Your task to perform on an android device: Open Youtube and go to "Your channel" Image 0: 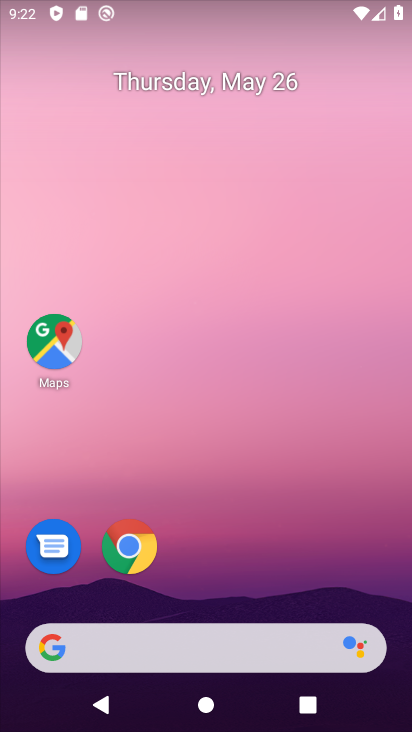
Step 0: drag from (297, 563) to (296, 209)
Your task to perform on an android device: Open Youtube and go to "Your channel" Image 1: 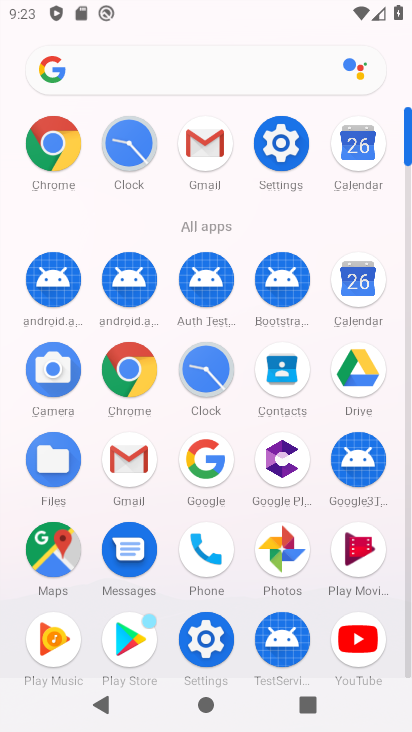
Step 1: click (371, 656)
Your task to perform on an android device: Open Youtube and go to "Your channel" Image 2: 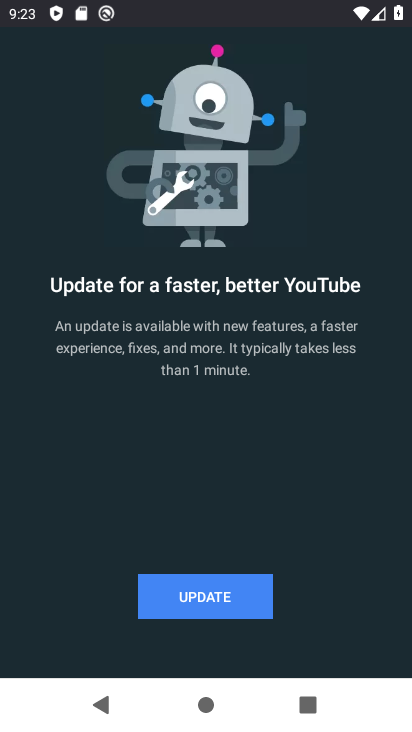
Step 2: click (217, 595)
Your task to perform on an android device: Open Youtube and go to "Your channel" Image 3: 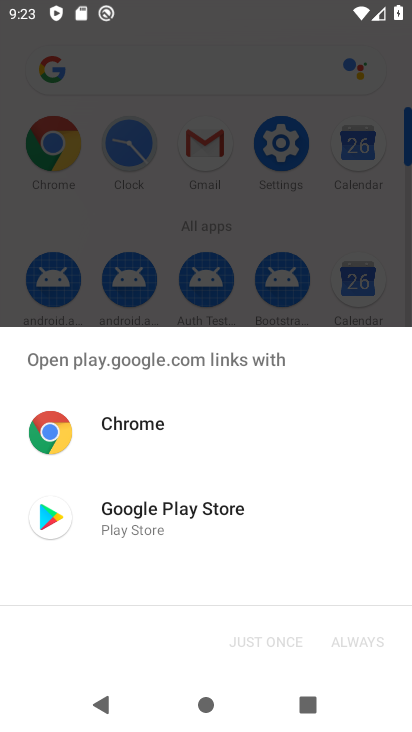
Step 3: click (176, 530)
Your task to perform on an android device: Open Youtube and go to "Your channel" Image 4: 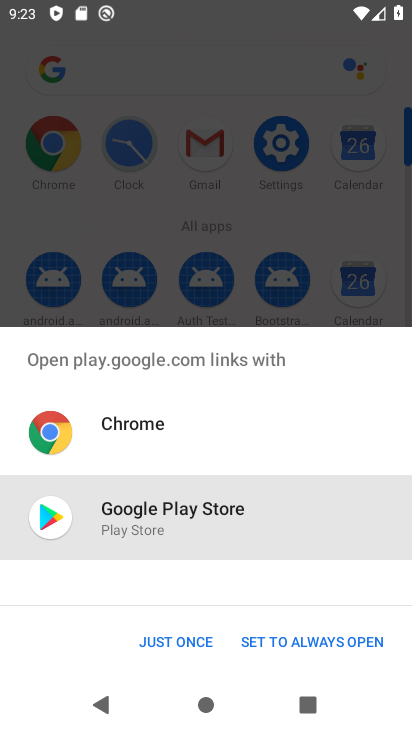
Step 4: click (193, 632)
Your task to perform on an android device: Open Youtube and go to "Your channel" Image 5: 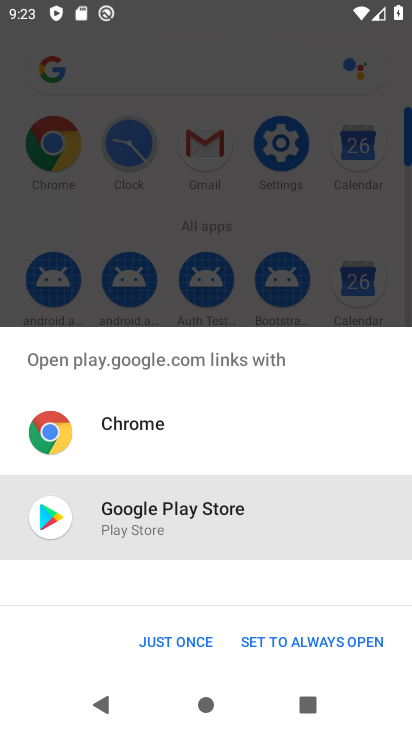
Step 5: click (192, 650)
Your task to perform on an android device: Open Youtube and go to "Your channel" Image 6: 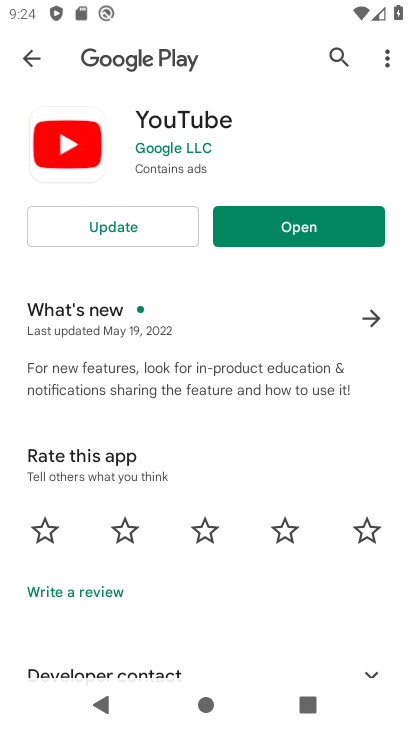
Step 6: click (143, 231)
Your task to perform on an android device: Open Youtube and go to "Your channel" Image 7: 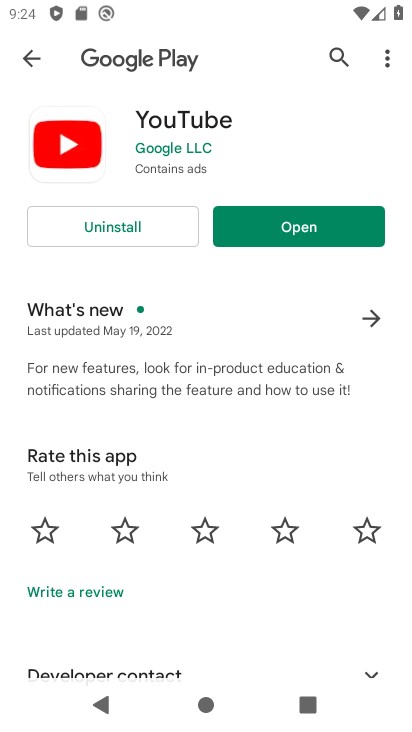
Step 7: click (286, 210)
Your task to perform on an android device: Open Youtube and go to "Your channel" Image 8: 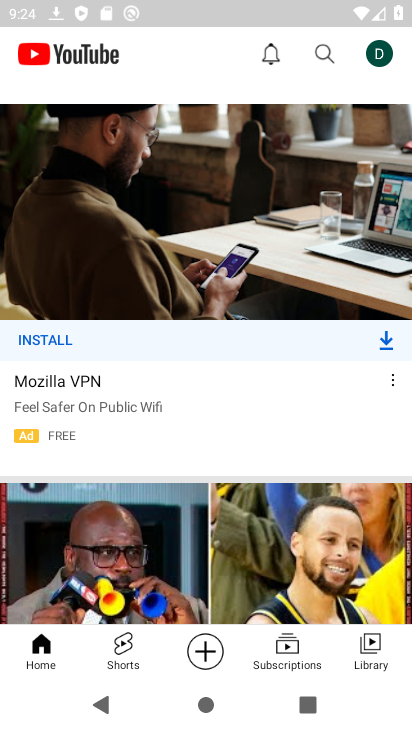
Step 8: click (377, 61)
Your task to perform on an android device: Open Youtube and go to "Your channel" Image 9: 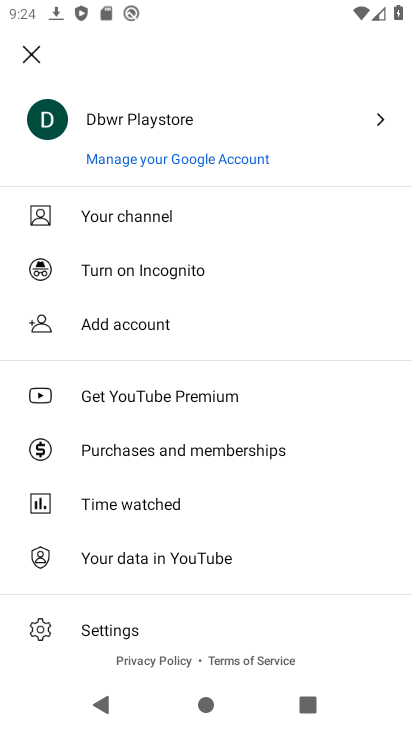
Step 9: click (174, 200)
Your task to perform on an android device: Open Youtube and go to "Your channel" Image 10: 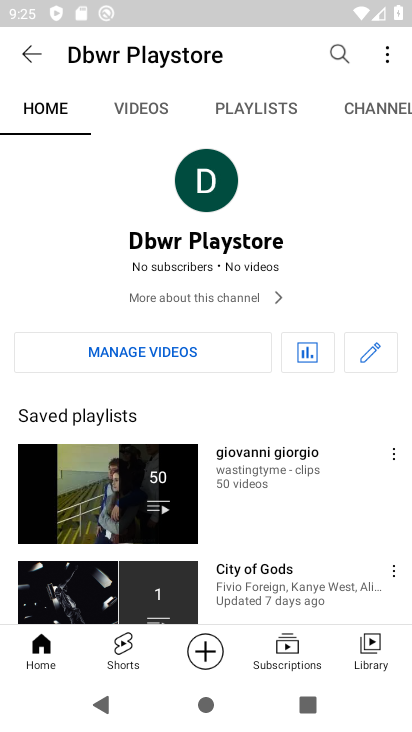
Step 10: task complete